Your task to perform on an android device: turn off airplane mode Image 0: 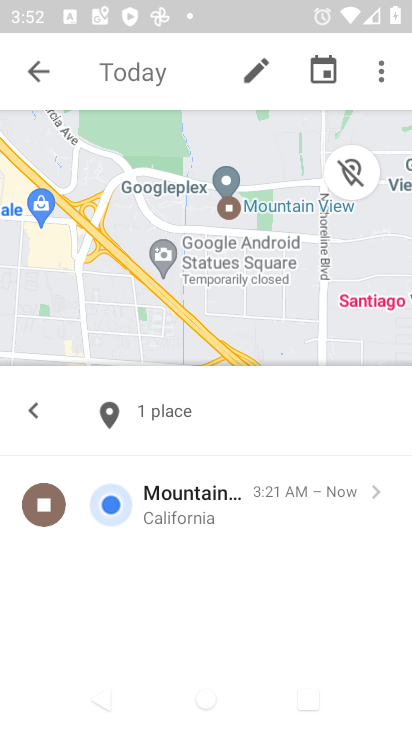
Step 0: press home button
Your task to perform on an android device: turn off airplane mode Image 1: 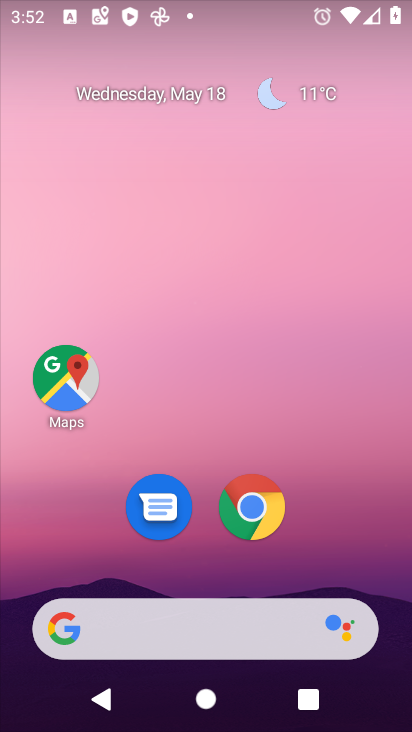
Step 1: drag from (405, 609) to (301, 46)
Your task to perform on an android device: turn off airplane mode Image 2: 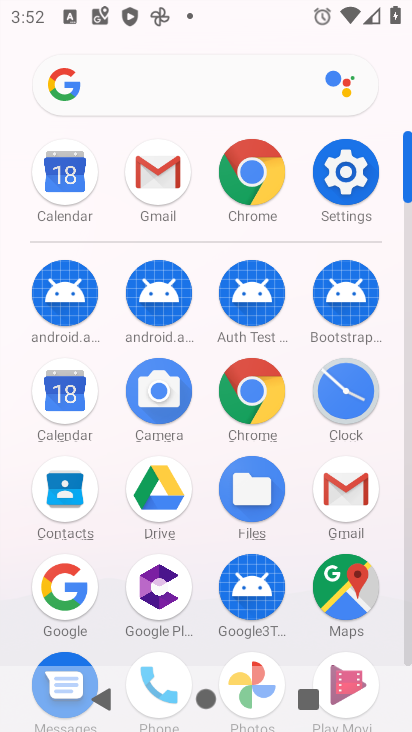
Step 2: click (406, 649)
Your task to perform on an android device: turn off airplane mode Image 3: 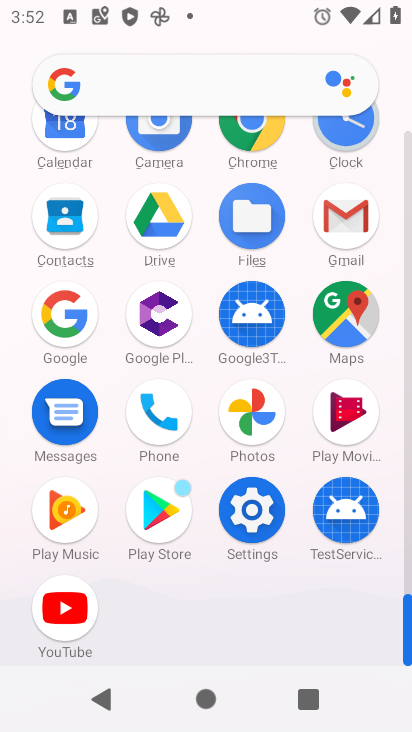
Step 3: click (252, 509)
Your task to perform on an android device: turn off airplane mode Image 4: 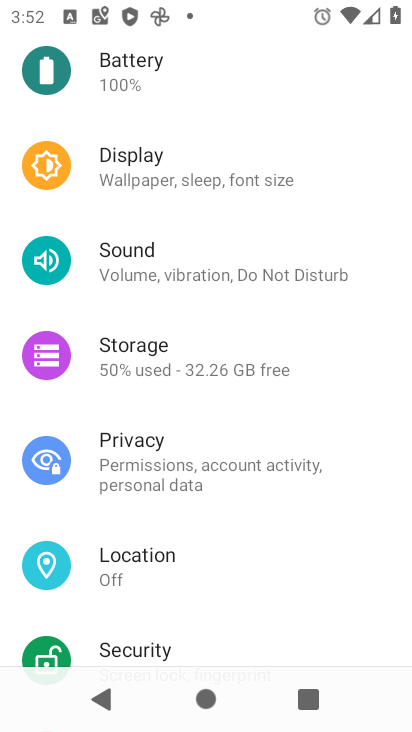
Step 4: drag from (378, 129) to (362, 464)
Your task to perform on an android device: turn off airplane mode Image 5: 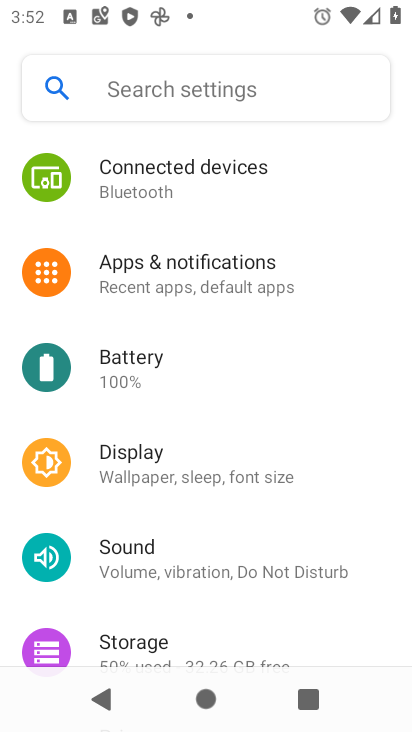
Step 5: drag from (330, 235) to (354, 572)
Your task to perform on an android device: turn off airplane mode Image 6: 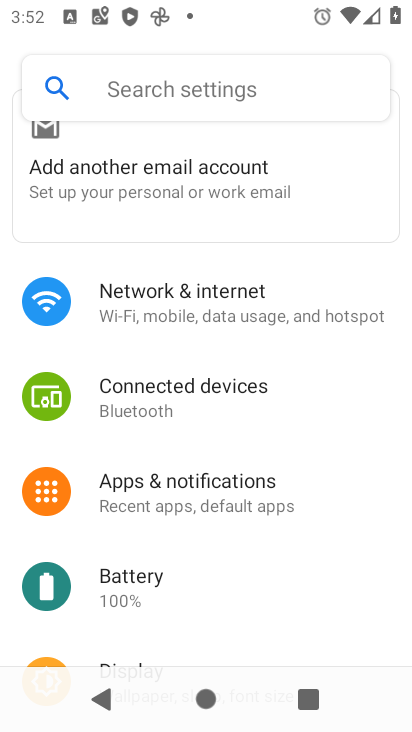
Step 6: click (139, 283)
Your task to perform on an android device: turn off airplane mode Image 7: 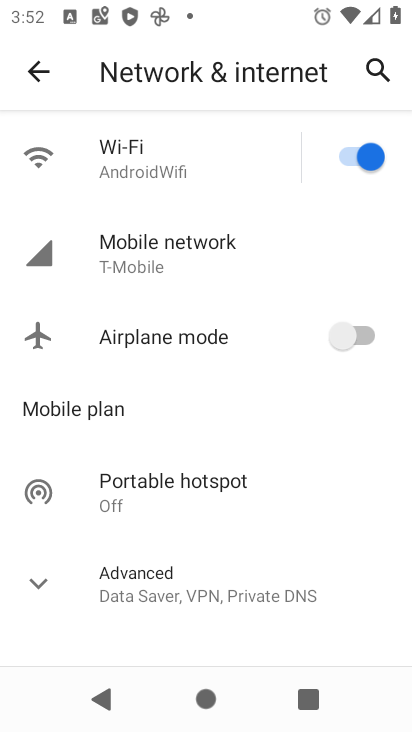
Step 7: task complete